Your task to perform on an android device: toggle show notifications on the lock screen Image 0: 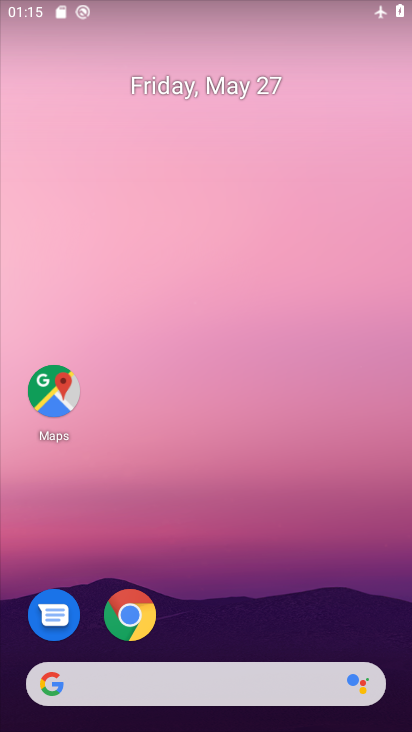
Step 0: drag from (357, 635) to (362, 304)
Your task to perform on an android device: toggle show notifications on the lock screen Image 1: 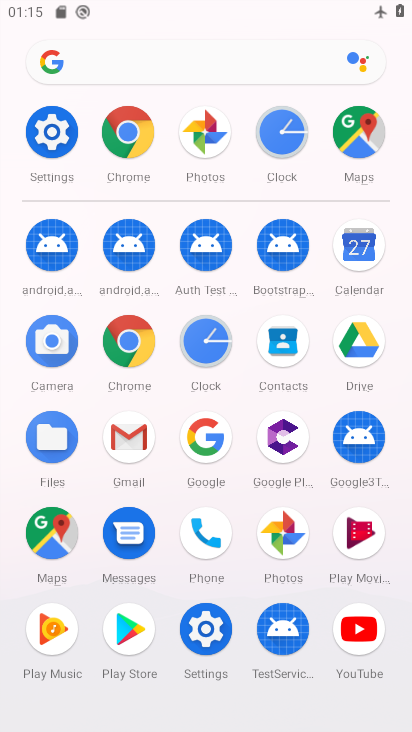
Step 1: click (219, 637)
Your task to perform on an android device: toggle show notifications on the lock screen Image 2: 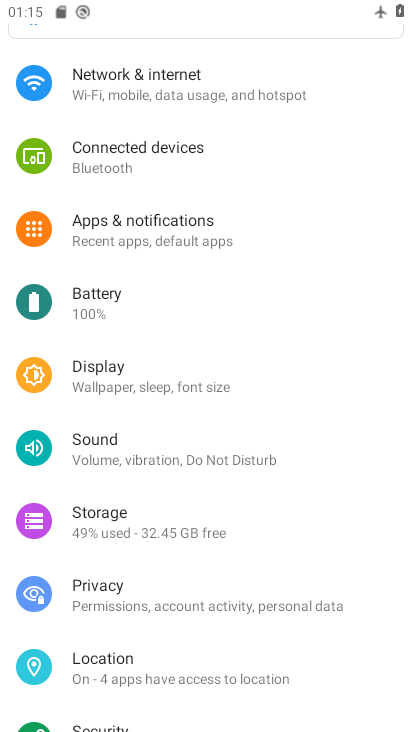
Step 2: drag from (336, 530) to (337, 448)
Your task to perform on an android device: toggle show notifications on the lock screen Image 3: 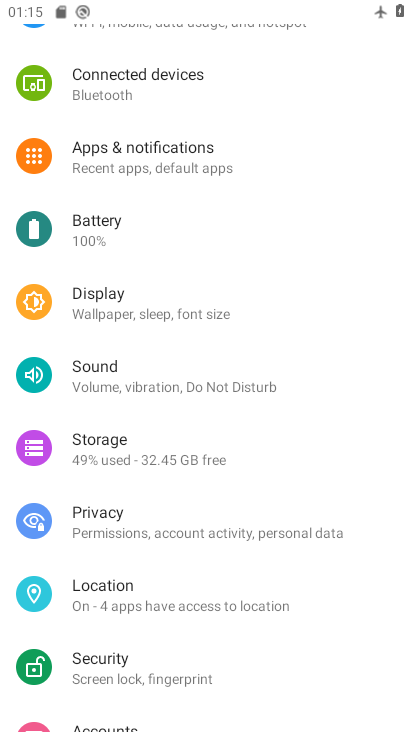
Step 3: drag from (327, 305) to (339, 441)
Your task to perform on an android device: toggle show notifications on the lock screen Image 4: 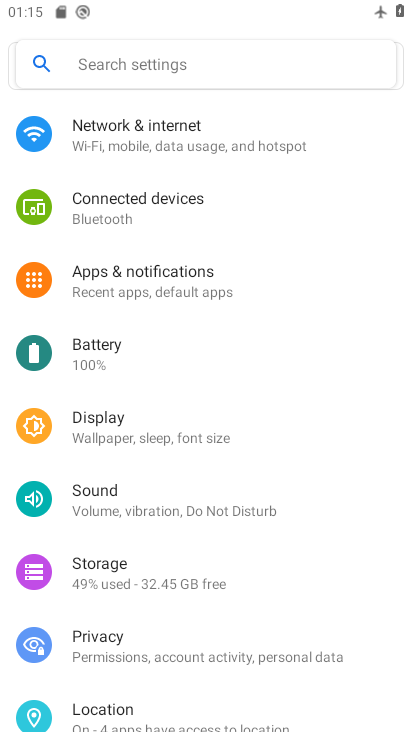
Step 4: drag from (295, 276) to (295, 384)
Your task to perform on an android device: toggle show notifications on the lock screen Image 5: 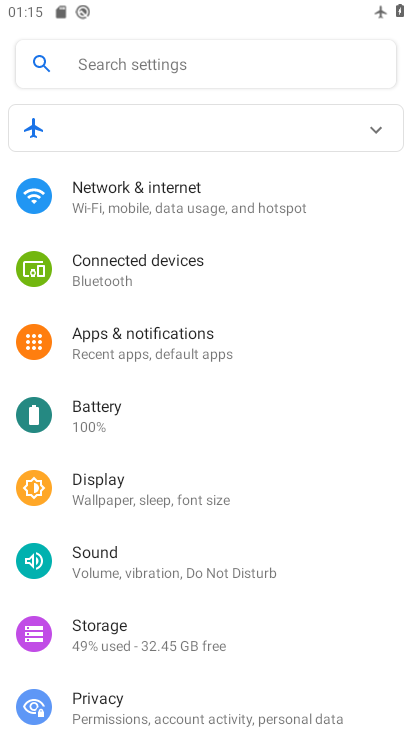
Step 5: click (237, 346)
Your task to perform on an android device: toggle show notifications on the lock screen Image 6: 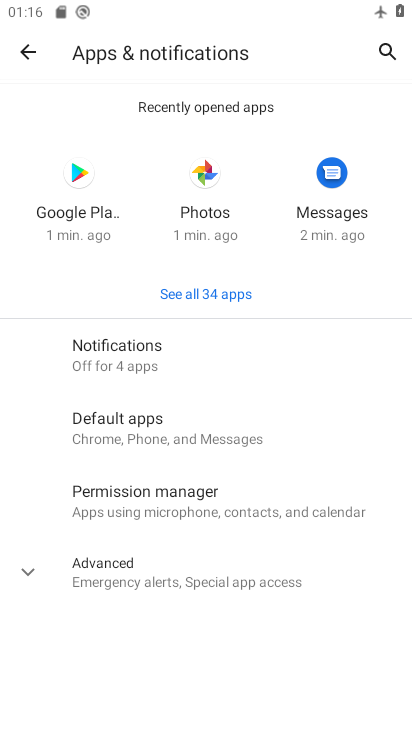
Step 6: click (171, 379)
Your task to perform on an android device: toggle show notifications on the lock screen Image 7: 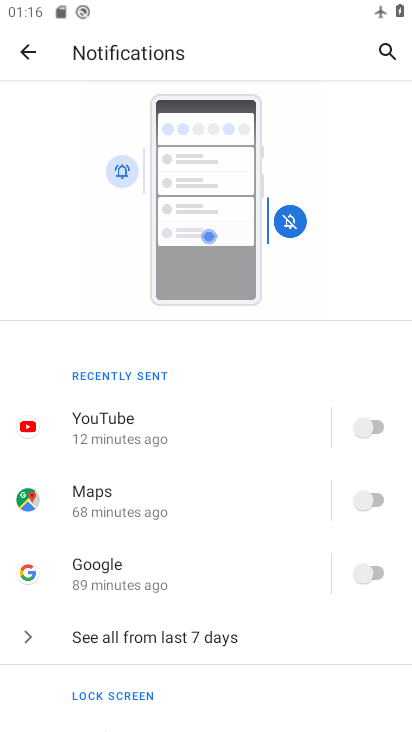
Step 7: drag from (298, 357) to (303, 542)
Your task to perform on an android device: toggle show notifications on the lock screen Image 8: 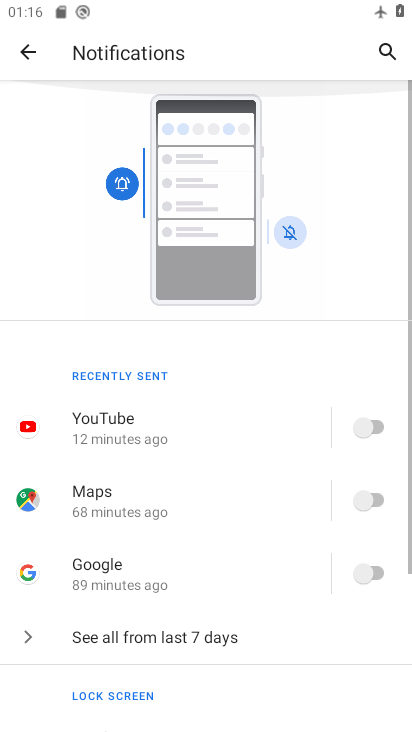
Step 8: drag from (293, 568) to (293, 484)
Your task to perform on an android device: toggle show notifications on the lock screen Image 9: 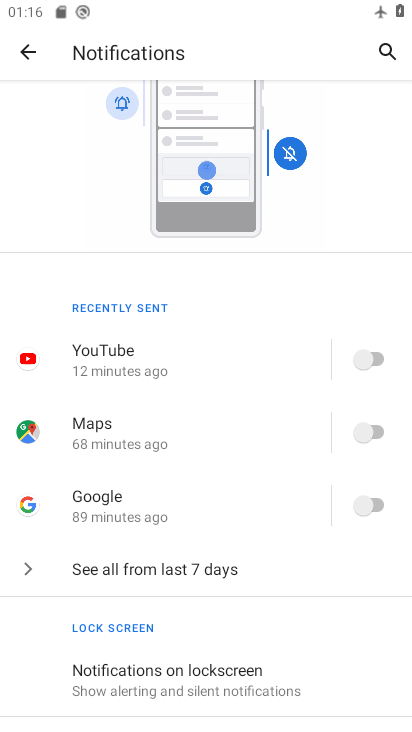
Step 9: drag from (293, 577) to (293, 475)
Your task to perform on an android device: toggle show notifications on the lock screen Image 10: 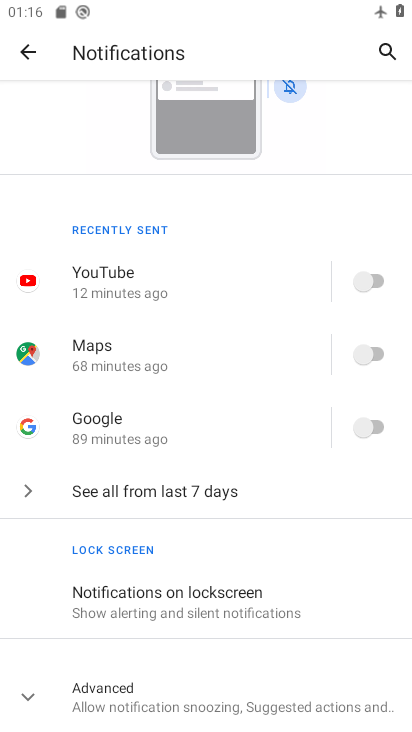
Step 10: click (288, 584)
Your task to perform on an android device: toggle show notifications on the lock screen Image 11: 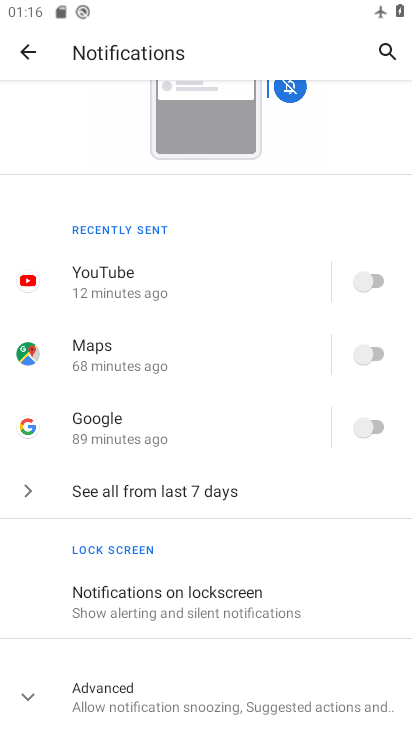
Step 11: drag from (308, 597) to (309, 532)
Your task to perform on an android device: toggle show notifications on the lock screen Image 12: 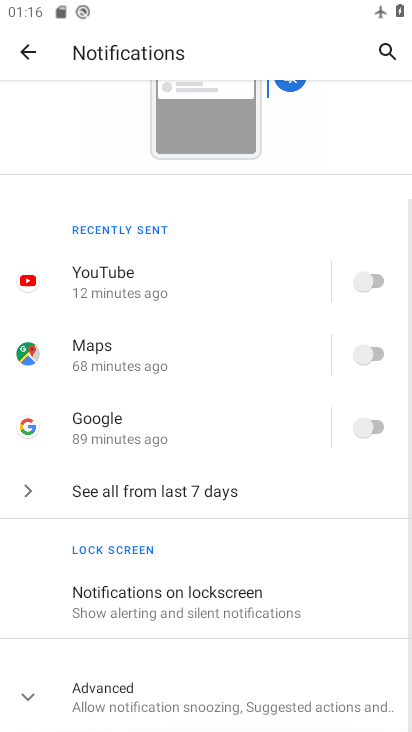
Step 12: click (294, 602)
Your task to perform on an android device: toggle show notifications on the lock screen Image 13: 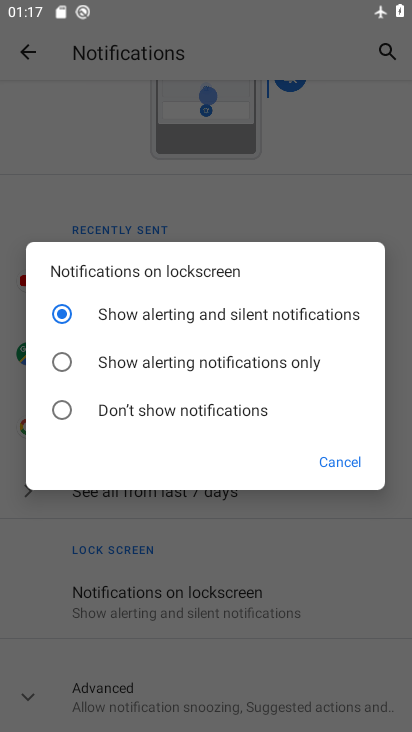
Step 13: click (245, 366)
Your task to perform on an android device: toggle show notifications on the lock screen Image 14: 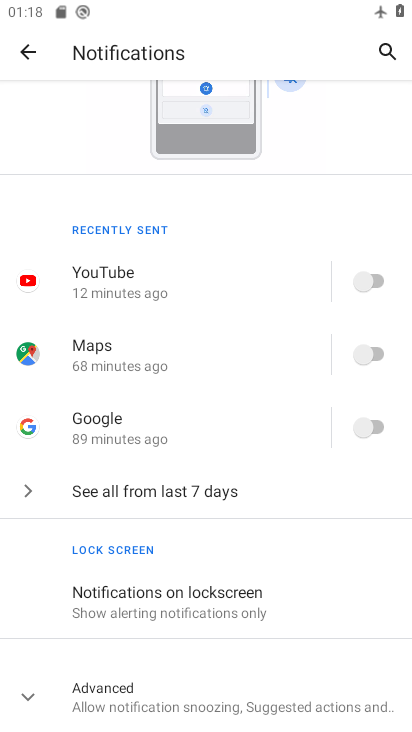
Step 14: click (228, 601)
Your task to perform on an android device: toggle show notifications on the lock screen Image 15: 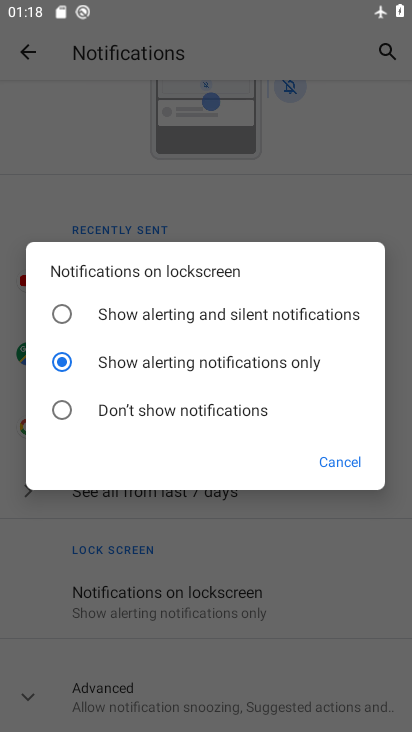
Step 15: click (67, 324)
Your task to perform on an android device: toggle show notifications on the lock screen Image 16: 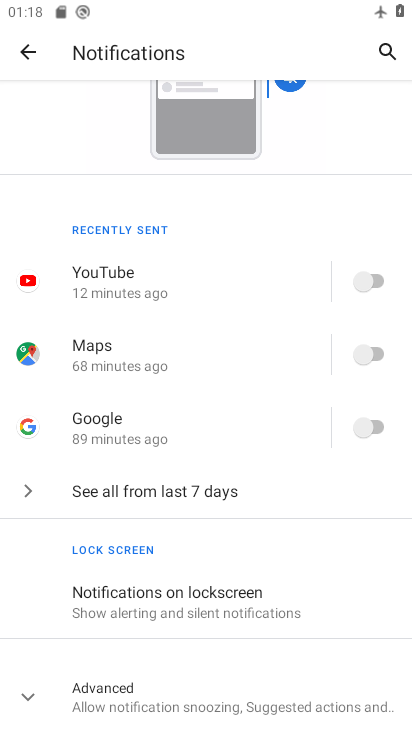
Step 16: task complete